Your task to perform on an android device: toggle pop-ups in chrome Image 0: 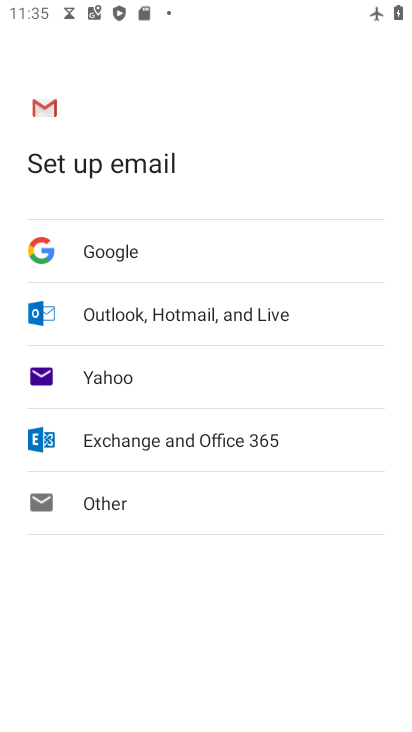
Step 0: press home button
Your task to perform on an android device: toggle pop-ups in chrome Image 1: 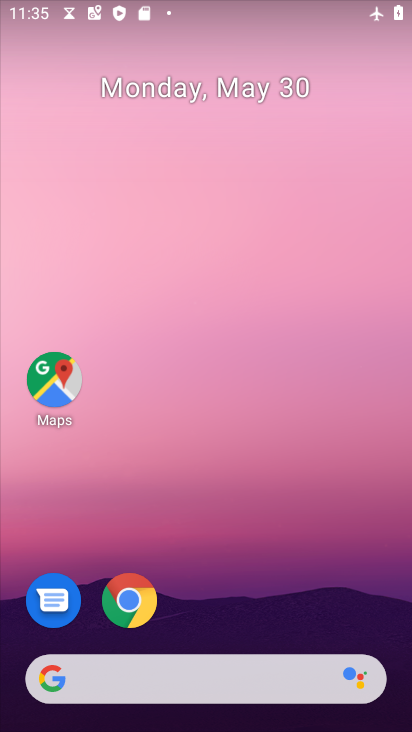
Step 1: click (126, 596)
Your task to perform on an android device: toggle pop-ups in chrome Image 2: 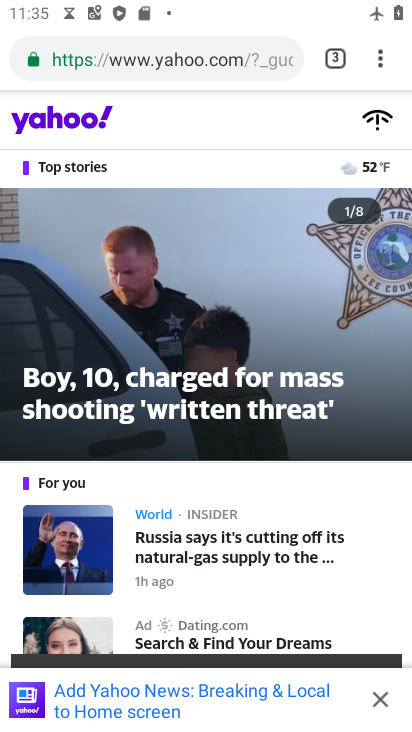
Step 2: click (378, 64)
Your task to perform on an android device: toggle pop-ups in chrome Image 3: 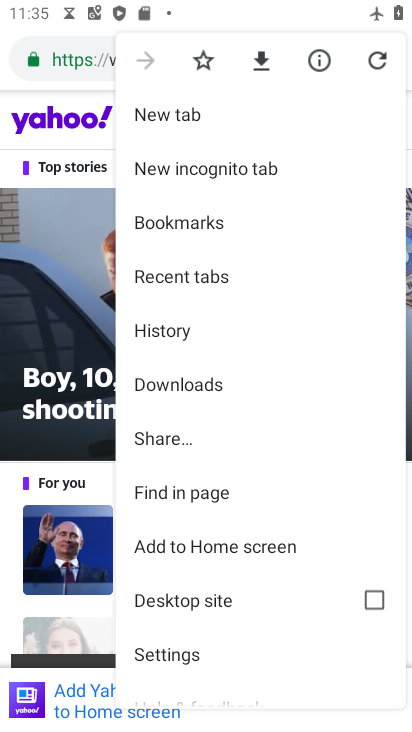
Step 3: click (192, 658)
Your task to perform on an android device: toggle pop-ups in chrome Image 4: 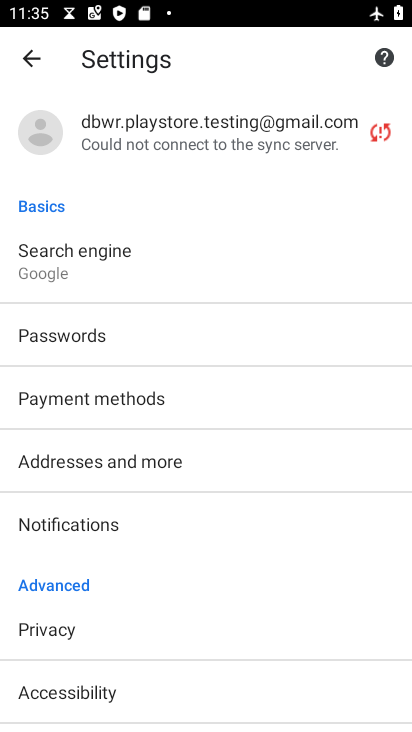
Step 4: drag from (122, 688) to (118, 139)
Your task to perform on an android device: toggle pop-ups in chrome Image 5: 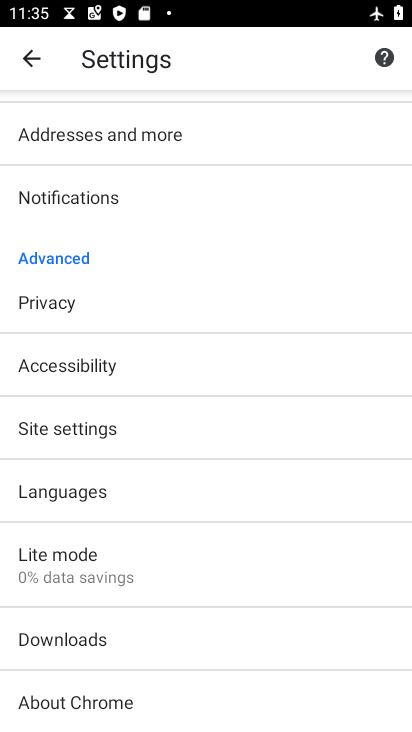
Step 5: click (63, 432)
Your task to perform on an android device: toggle pop-ups in chrome Image 6: 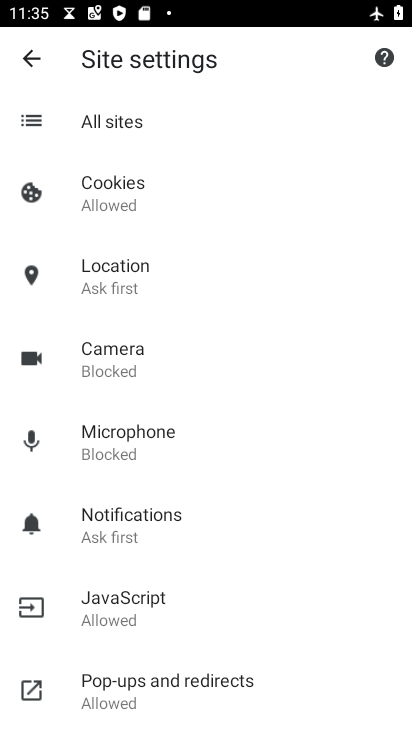
Step 6: click (186, 682)
Your task to perform on an android device: toggle pop-ups in chrome Image 7: 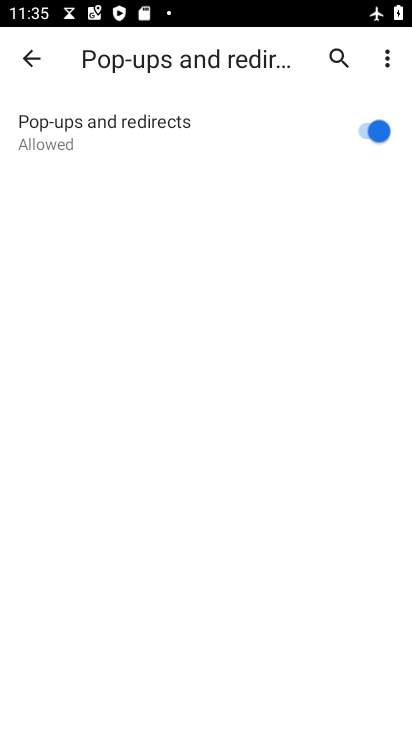
Step 7: click (361, 131)
Your task to perform on an android device: toggle pop-ups in chrome Image 8: 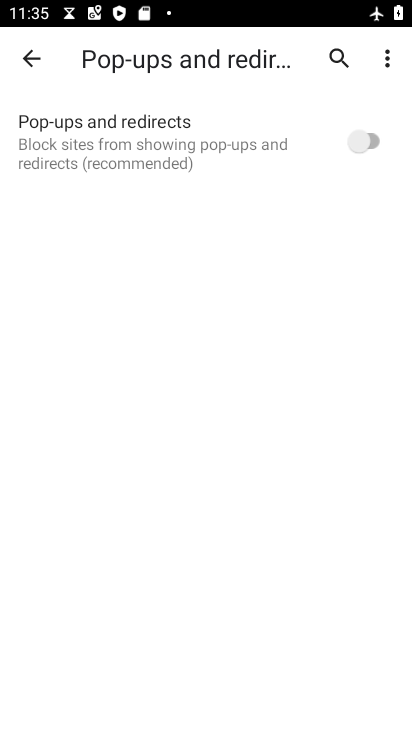
Step 8: task complete